Your task to perform on an android device: Check the news Image 0: 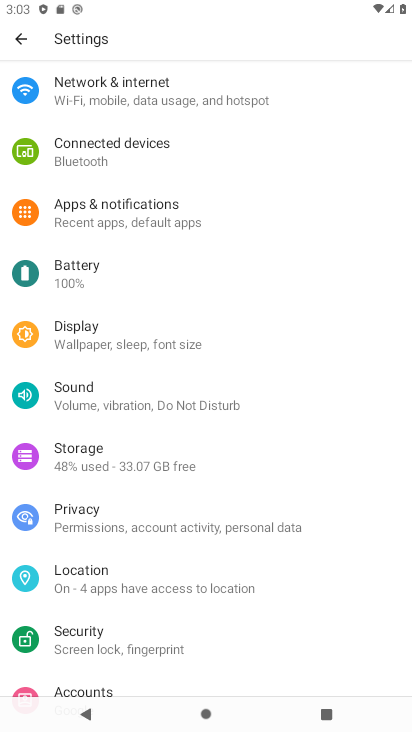
Step 0: press home button
Your task to perform on an android device: Check the news Image 1: 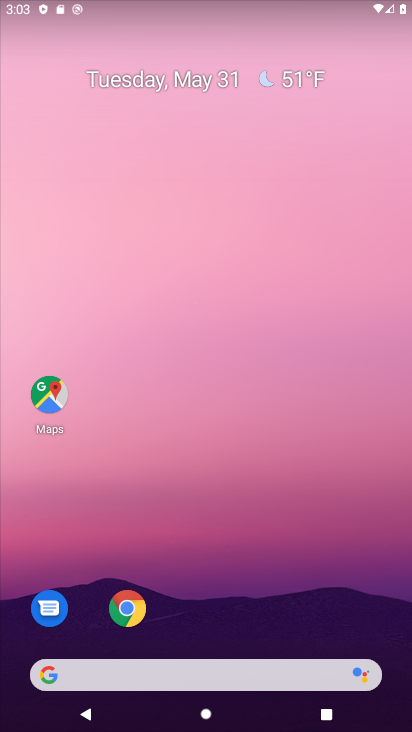
Step 1: click (132, 626)
Your task to perform on an android device: Check the news Image 2: 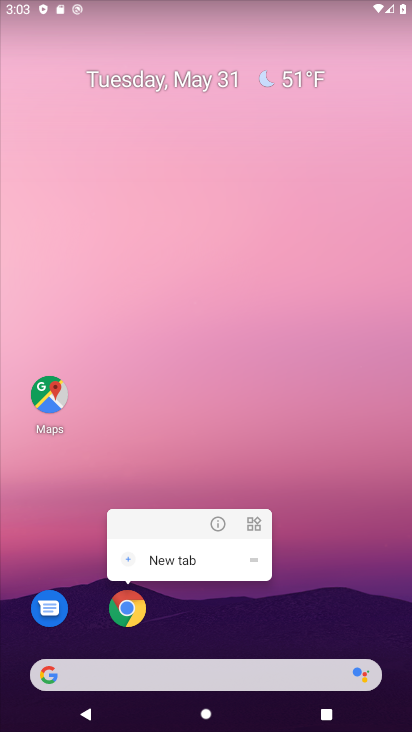
Step 2: click (172, 611)
Your task to perform on an android device: Check the news Image 3: 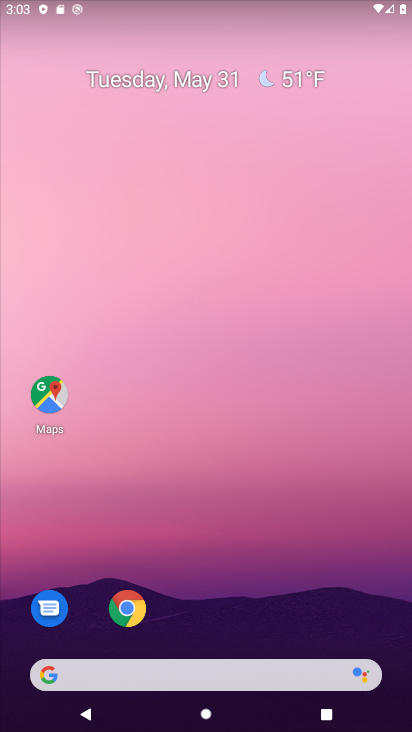
Step 3: drag from (226, 620) to (160, 142)
Your task to perform on an android device: Check the news Image 4: 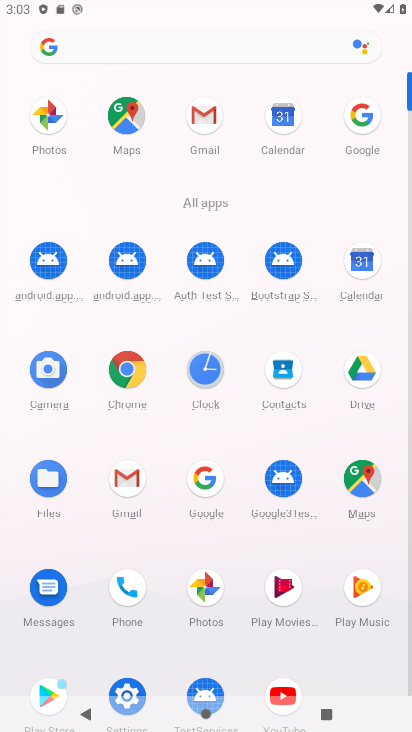
Step 4: click (132, 374)
Your task to perform on an android device: Check the news Image 5: 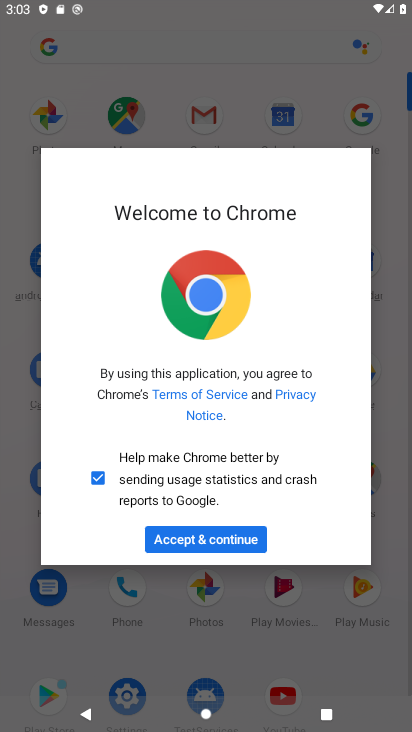
Step 5: click (210, 550)
Your task to perform on an android device: Check the news Image 6: 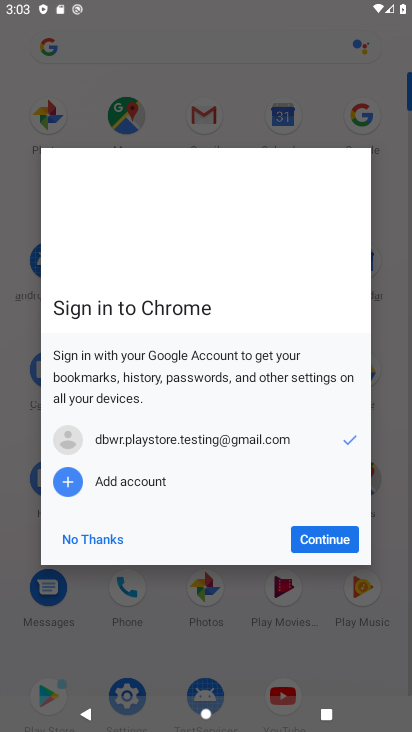
Step 6: click (309, 523)
Your task to perform on an android device: Check the news Image 7: 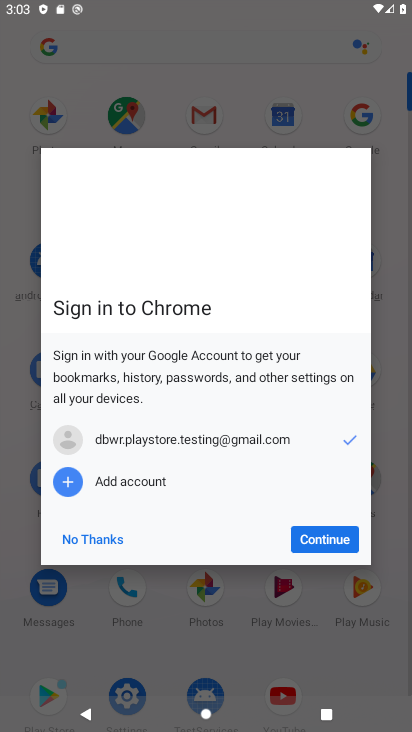
Step 7: click (322, 548)
Your task to perform on an android device: Check the news Image 8: 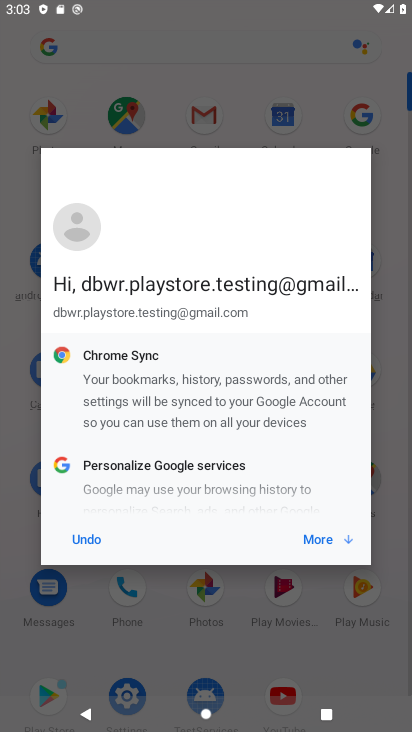
Step 8: click (322, 543)
Your task to perform on an android device: Check the news Image 9: 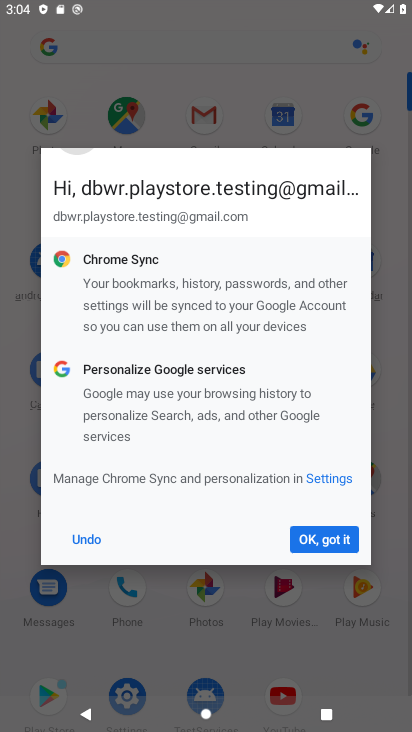
Step 9: click (322, 543)
Your task to perform on an android device: Check the news Image 10: 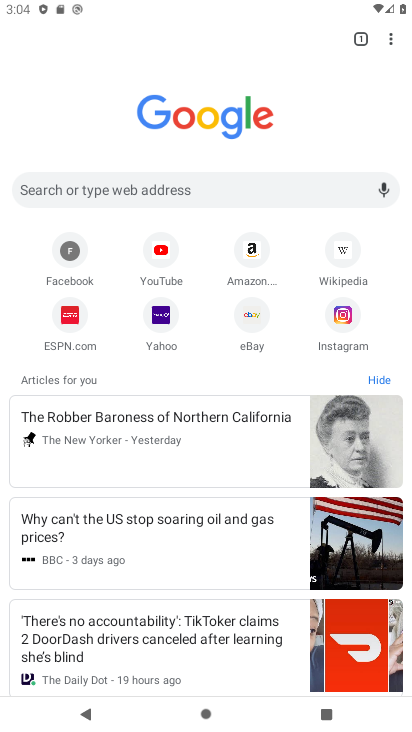
Step 10: click (203, 185)
Your task to perform on an android device: Check the news Image 11: 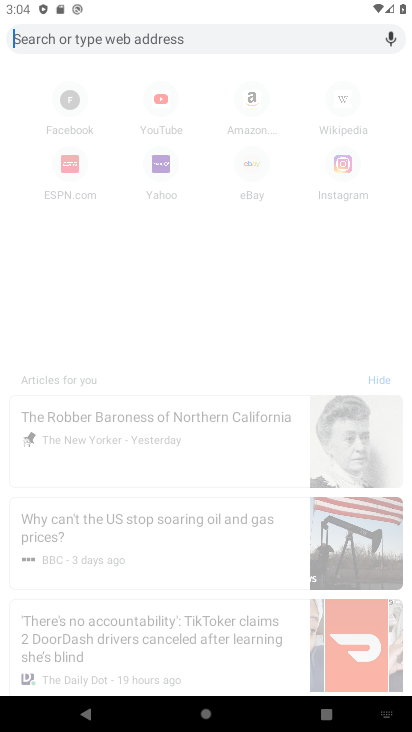
Step 11: type "Check the news"
Your task to perform on an android device: Check the news Image 12: 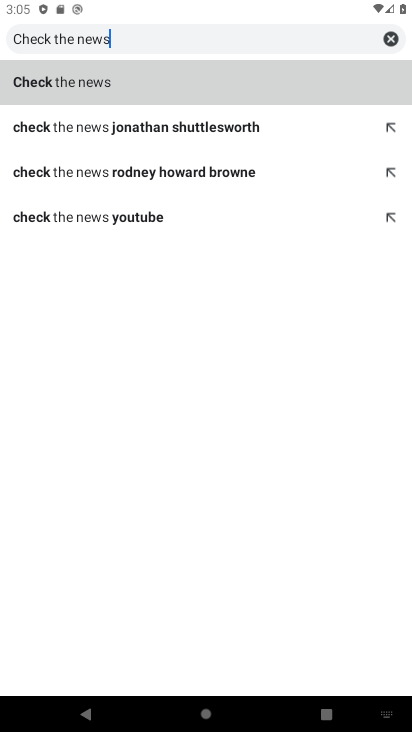
Step 12: click (93, 79)
Your task to perform on an android device: Check the news Image 13: 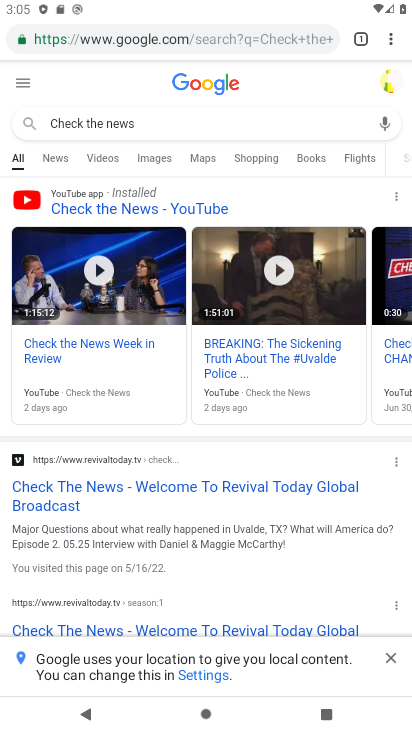
Step 13: click (57, 157)
Your task to perform on an android device: Check the news Image 14: 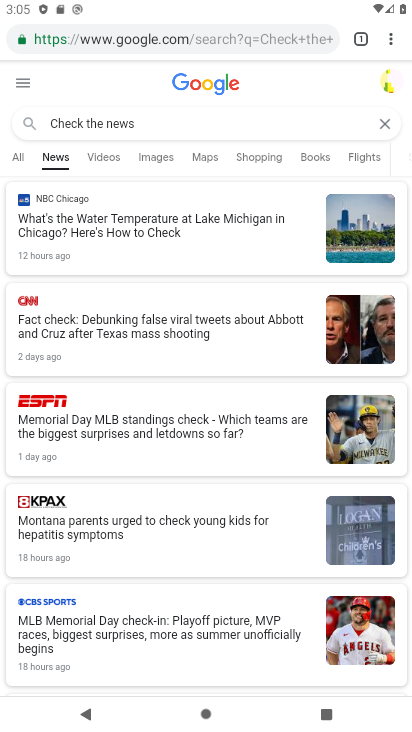
Step 14: task complete